Your task to perform on an android device: move a message to another label in the gmail app Image 0: 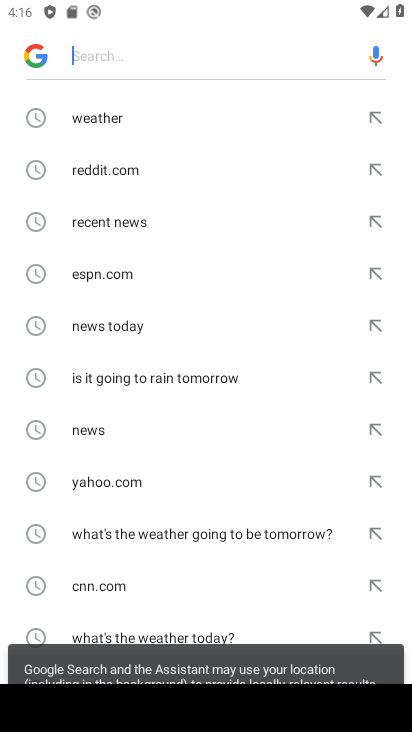
Step 0: press home button
Your task to perform on an android device: move a message to another label in the gmail app Image 1: 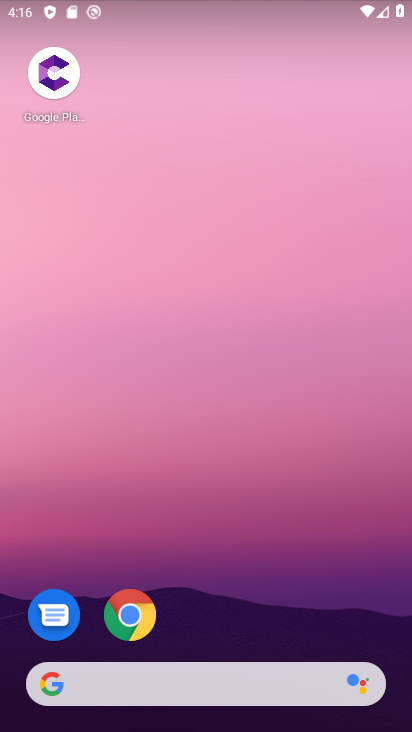
Step 1: drag from (202, 514) to (254, 32)
Your task to perform on an android device: move a message to another label in the gmail app Image 2: 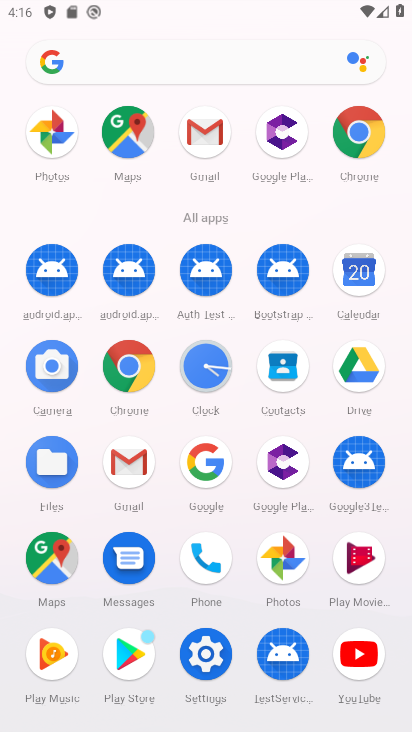
Step 2: click (136, 465)
Your task to perform on an android device: move a message to another label in the gmail app Image 3: 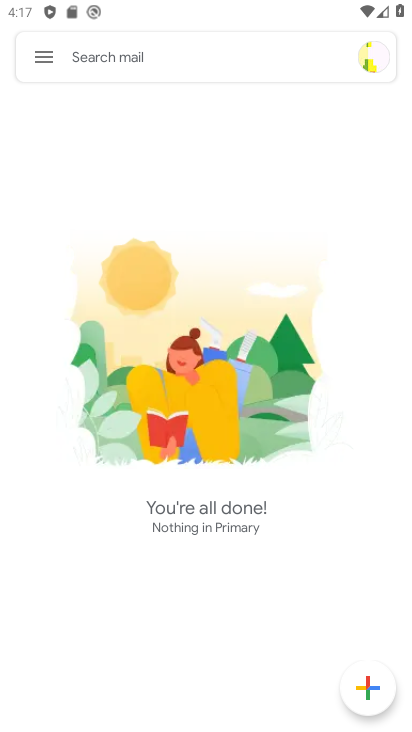
Step 3: click (47, 57)
Your task to perform on an android device: move a message to another label in the gmail app Image 4: 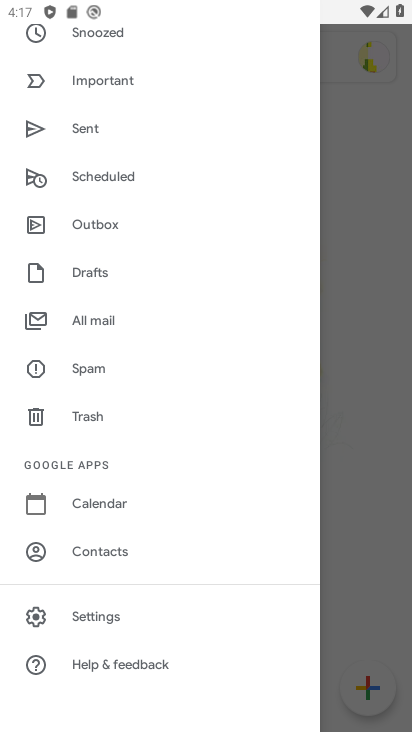
Step 4: click (82, 322)
Your task to perform on an android device: move a message to another label in the gmail app Image 5: 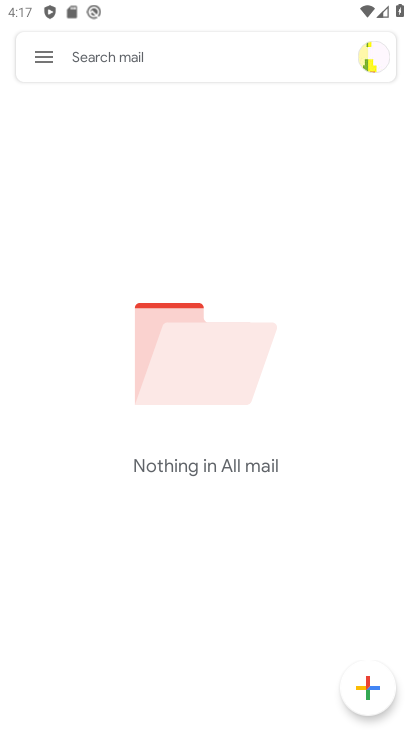
Step 5: task complete